Your task to perform on an android device: Show me popular videos on Youtube Image 0: 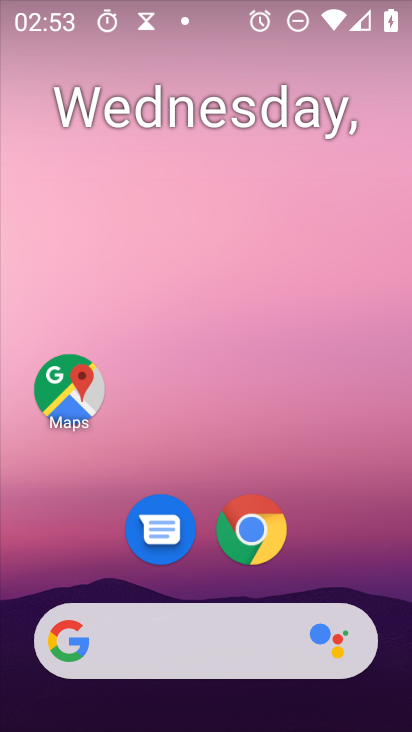
Step 0: drag from (249, 592) to (348, 3)
Your task to perform on an android device: Show me popular videos on Youtube Image 1: 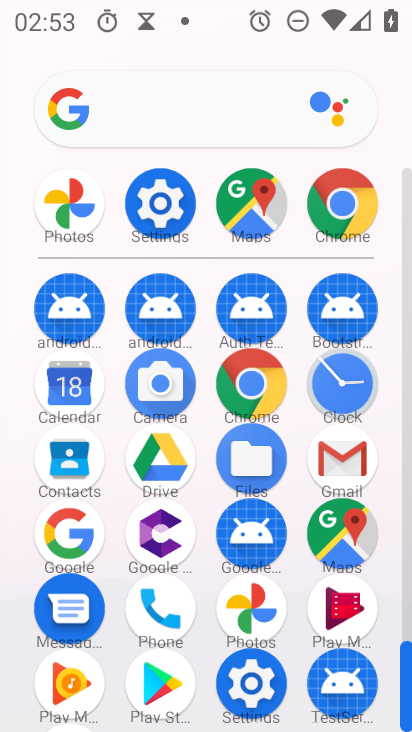
Step 1: drag from (283, 628) to (285, 227)
Your task to perform on an android device: Show me popular videos on Youtube Image 2: 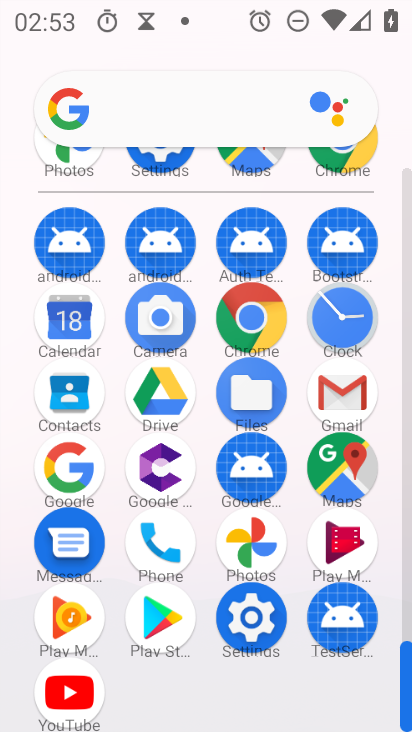
Step 2: click (58, 690)
Your task to perform on an android device: Show me popular videos on Youtube Image 3: 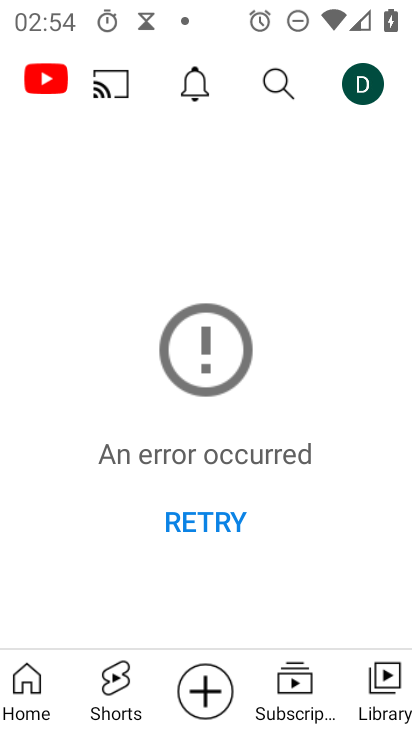
Step 3: click (398, 700)
Your task to perform on an android device: Show me popular videos on Youtube Image 4: 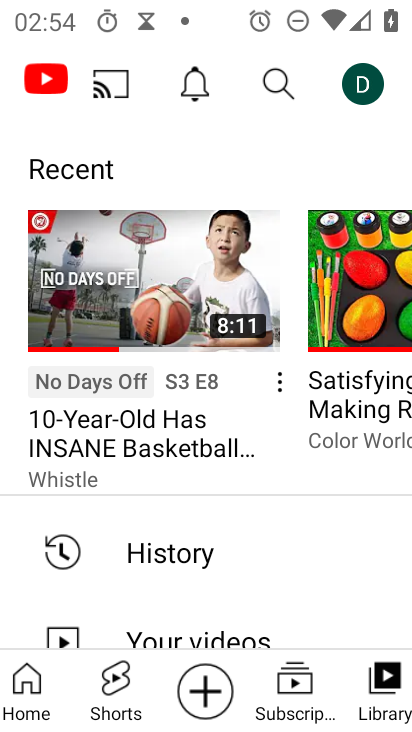
Step 4: click (40, 703)
Your task to perform on an android device: Show me popular videos on Youtube Image 5: 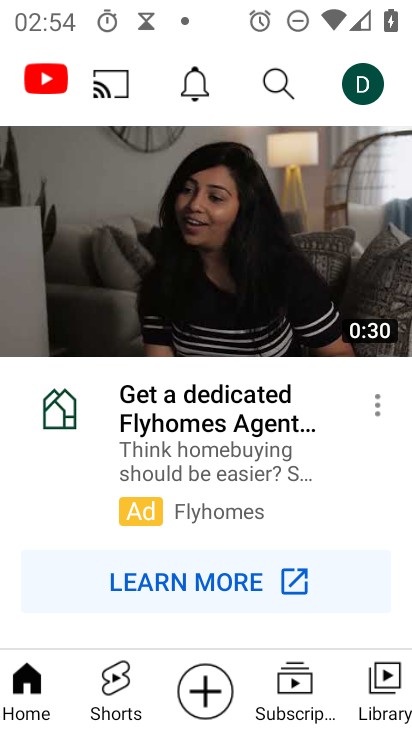
Step 5: task complete